Your task to perform on an android device: add a contact Image 0: 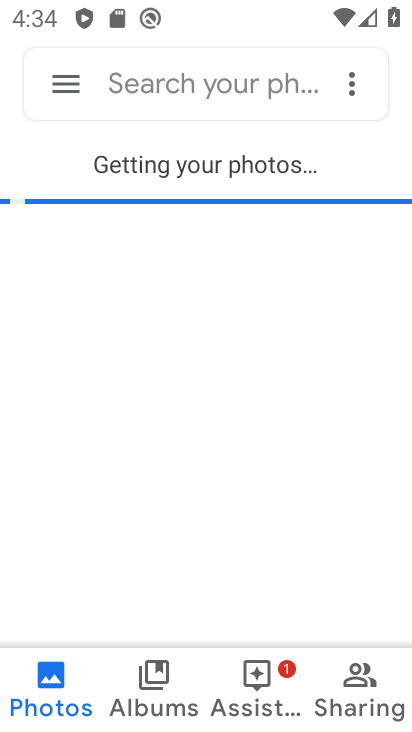
Step 0: press home button
Your task to perform on an android device: add a contact Image 1: 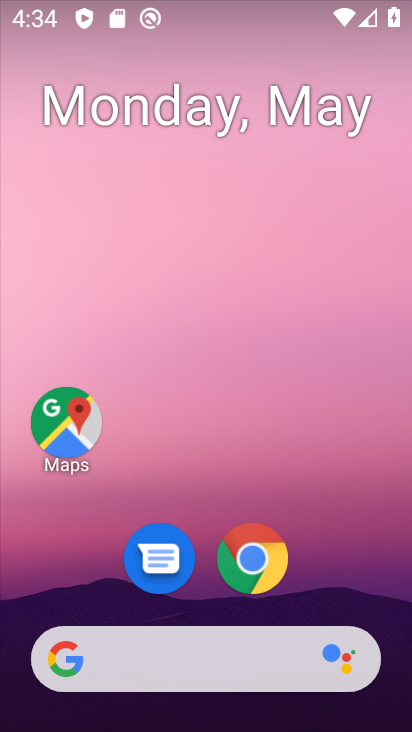
Step 1: drag from (336, 543) to (240, 13)
Your task to perform on an android device: add a contact Image 2: 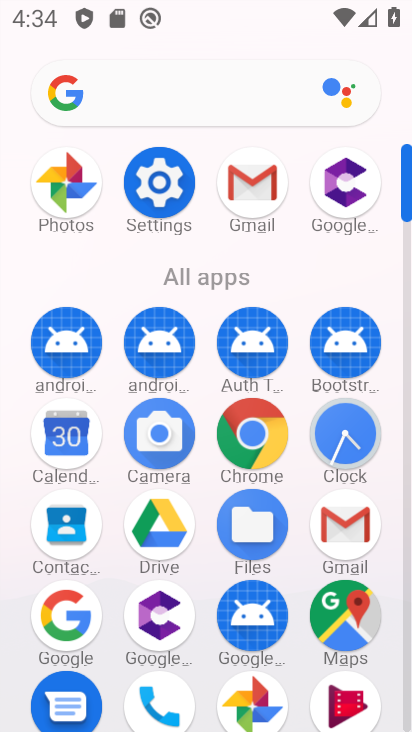
Step 2: click (64, 532)
Your task to perform on an android device: add a contact Image 3: 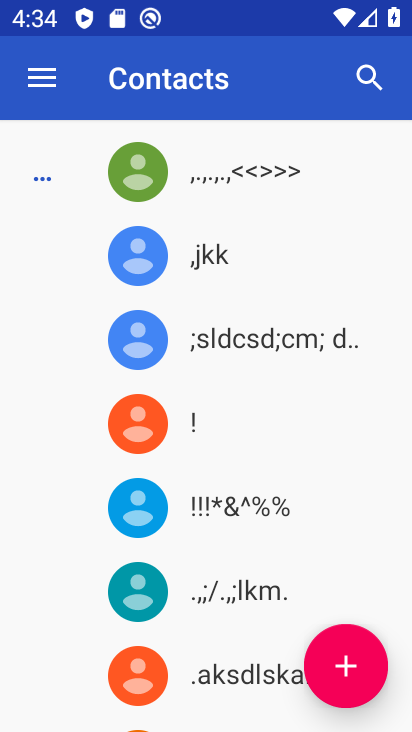
Step 3: click (343, 657)
Your task to perform on an android device: add a contact Image 4: 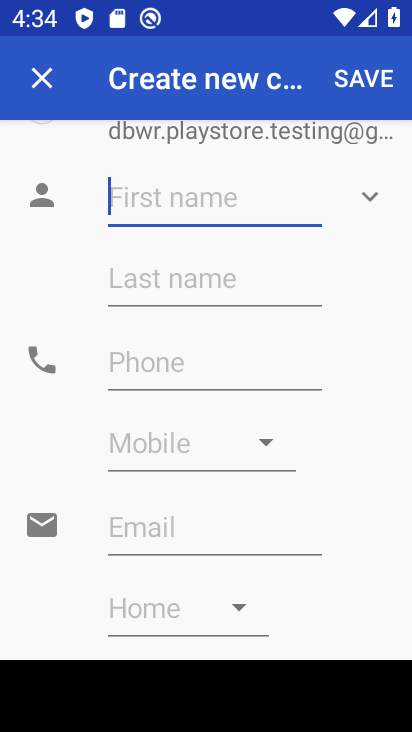
Step 4: click (162, 200)
Your task to perform on an android device: add a contact Image 5: 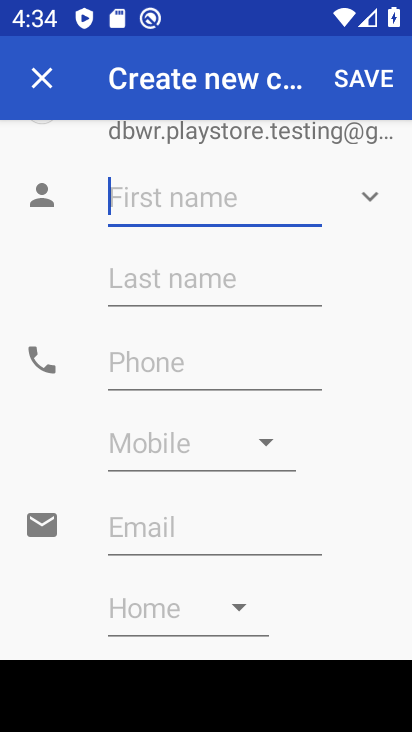
Step 5: type "jc"
Your task to perform on an android device: add a contact Image 6: 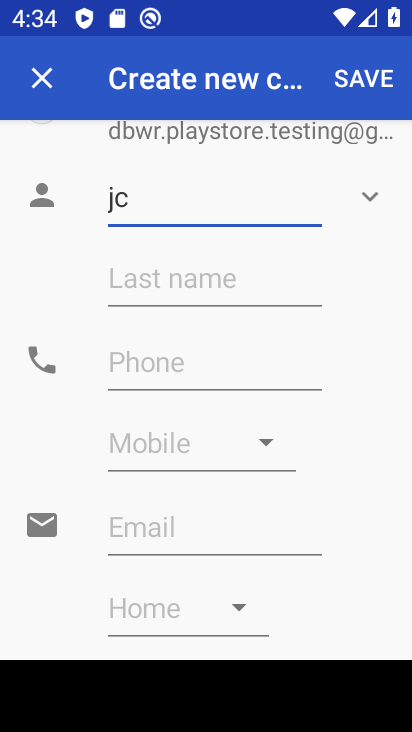
Step 6: click (143, 350)
Your task to perform on an android device: add a contact Image 7: 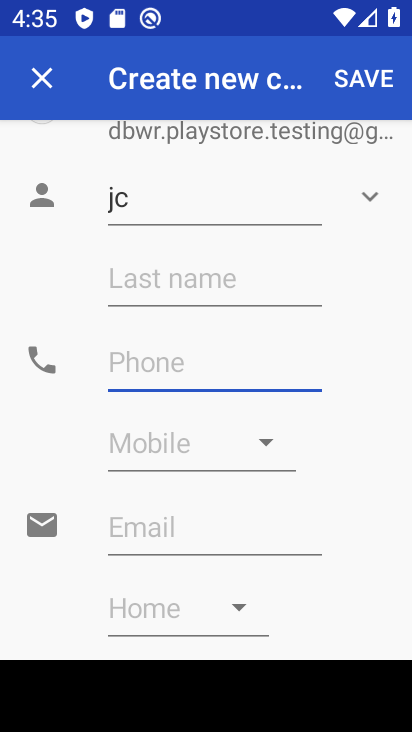
Step 7: type "98767890"
Your task to perform on an android device: add a contact Image 8: 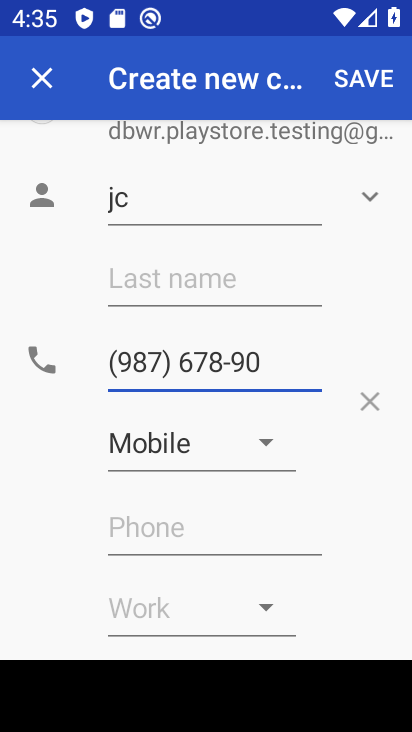
Step 8: click (388, 86)
Your task to perform on an android device: add a contact Image 9: 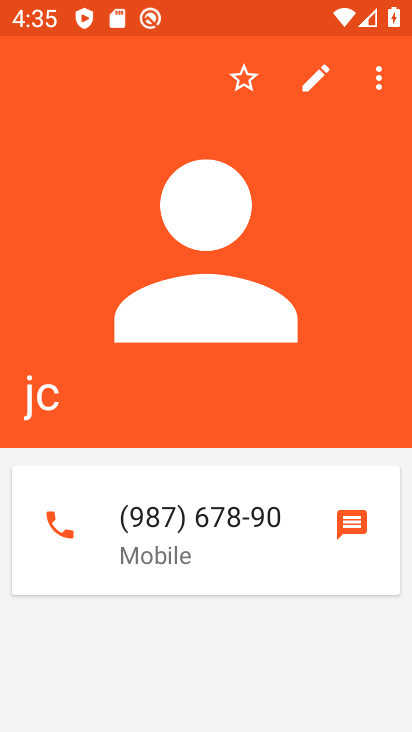
Step 9: task complete